Your task to perform on an android device: What is the news today? Image 0: 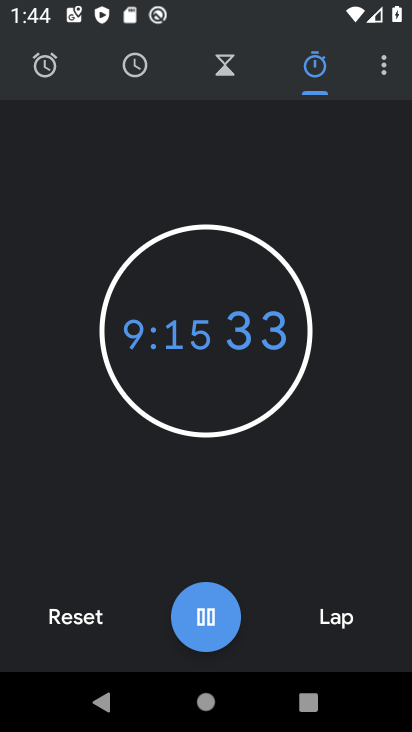
Step 0: press home button
Your task to perform on an android device: What is the news today? Image 1: 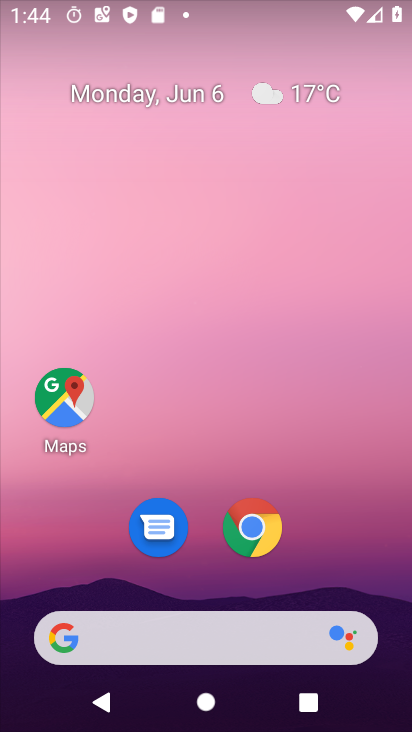
Step 1: task complete